Your task to perform on an android device: Search for pizza restaurants on Maps Image 0: 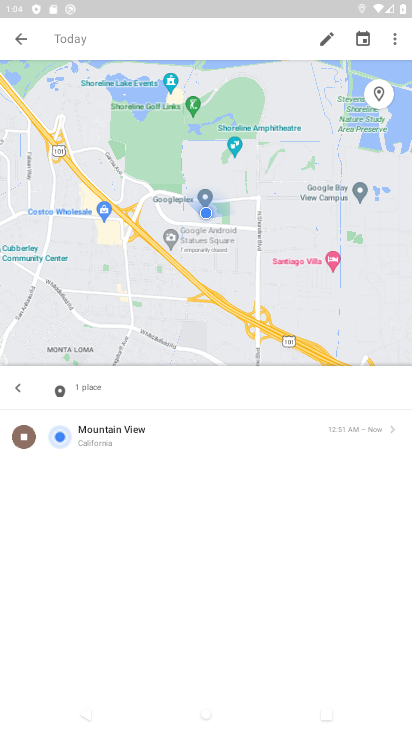
Step 0: click (52, 42)
Your task to perform on an android device: Search for pizza restaurants on Maps Image 1: 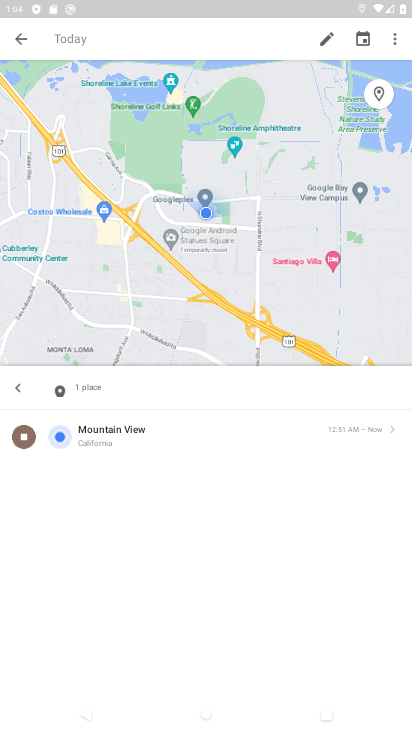
Step 1: click (28, 41)
Your task to perform on an android device: Search for pizza restaurants on Maps Image 2: 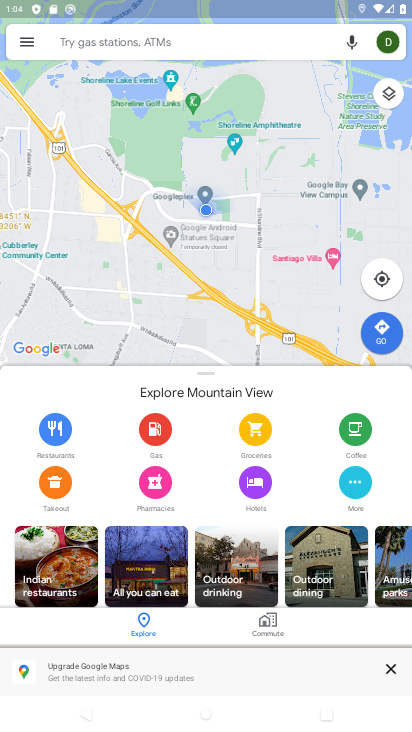
Step 2: click (192, 40)
Your task to perform on an android device: Search for pizza restaurants on Maps Image 3: 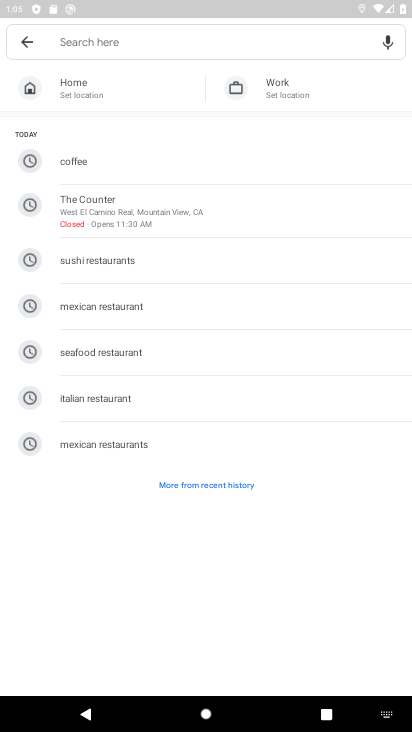
Step 3: type "pi"
Your task to perform on an android device: Search for pizza restaurants on Maps Image 4: 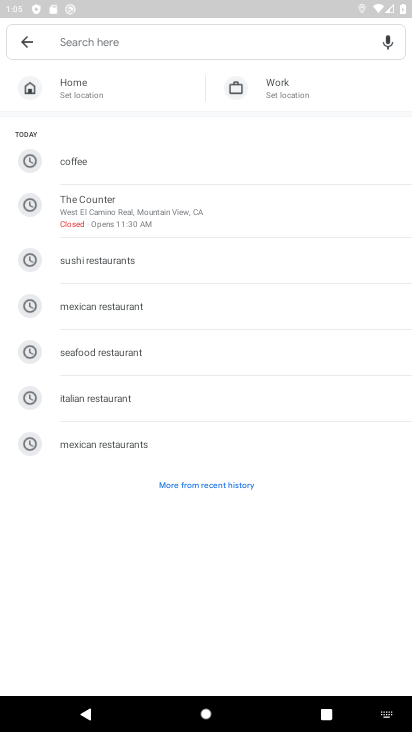
Step 4: click (214, 478)
Your task to perform on an android device: Search for pizza restaurants on Maps Image 5: 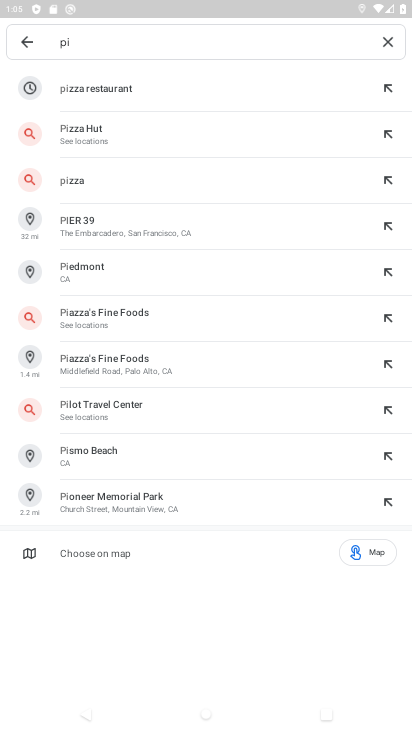
Step 5: click (153, 93)
Your task to perform on an android device: Search for pizza restaurants on Maps Image 6: 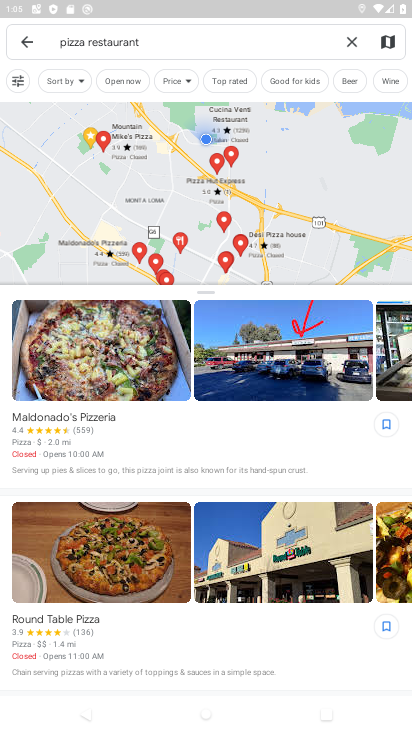
Step 6: task complete